Your task to perform on an android device: Go to settings Image 0: 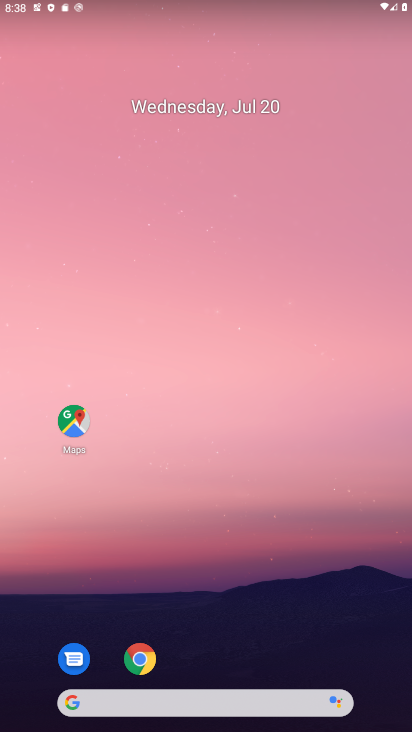
Step 0: drag from (274, 648) to (330, 59)
Your task to perform on an android device: Go to settings Image 1: 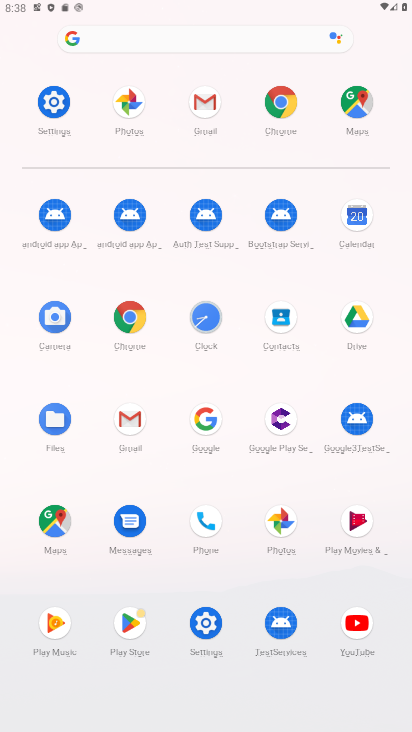
Step 1: click (210, 620)
Your task to perform on an android device: Go to settings Image 2: 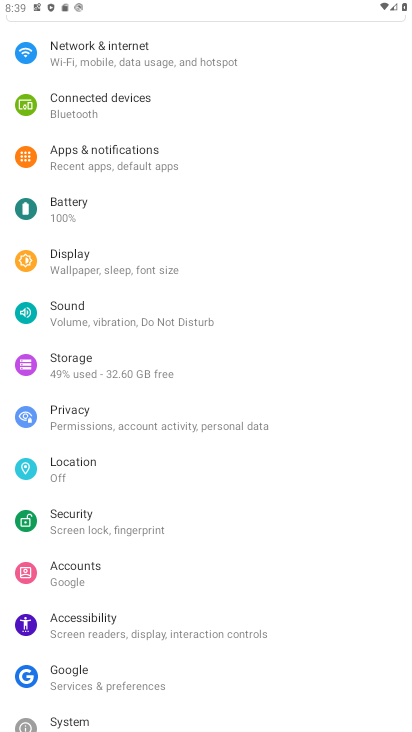
Step 2: task complete